Your task to perform on an android device: turn on showing notifications on the lock screen Image 0: 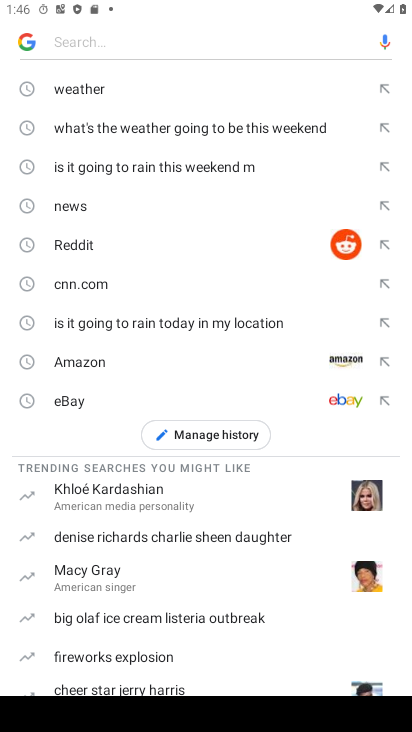
Step 0: press home button
Your task to perform on an android device: turn on showing notifications on the lock screen Image 1: 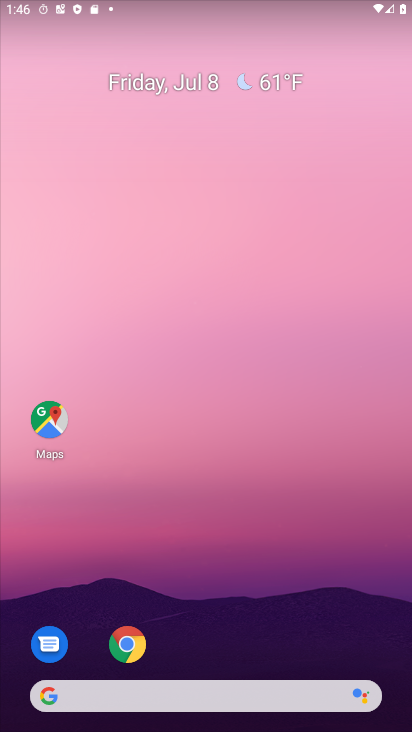
Step 1: drag from (214, 604) to (184, 219)
Your task to perform on an android device: turn on showing notifications on the lock screen Image 2: 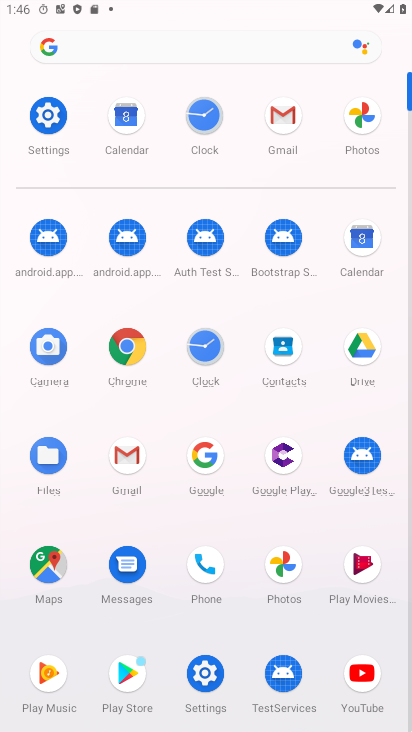
Step 2: click (184, 219)
Your task to perform on an android device: turn on showing notifications on the lock screen Image 3: 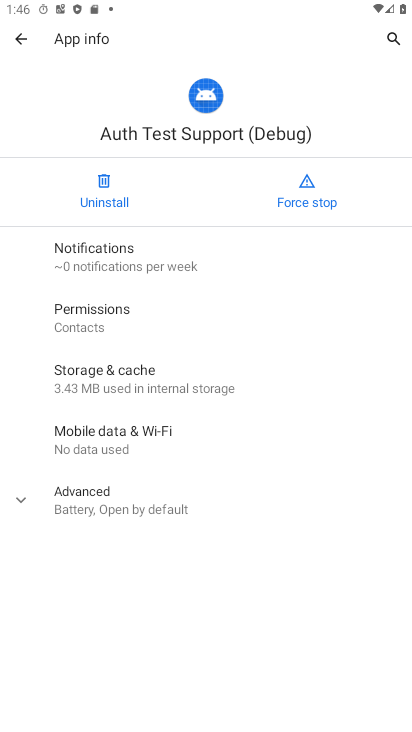
Step 3: press home button
Your task to perform on an android device: turn on showing notifications on the lock screen Image 4: 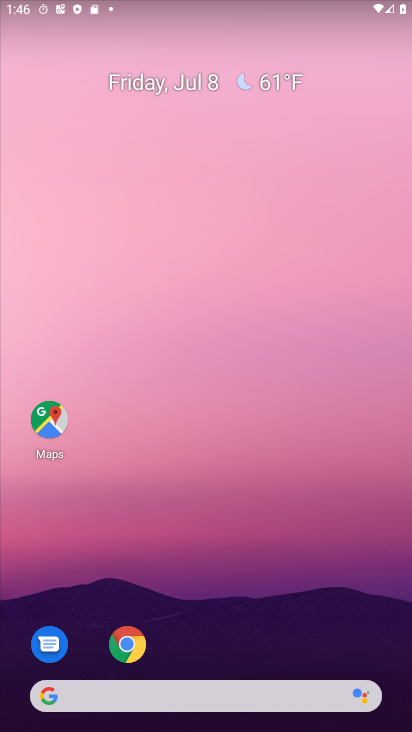
Step 4: drag from (327, 26) to (336, 701)
Your task to perform on an android device: turn on showing notifications on the lock screen Image 5: 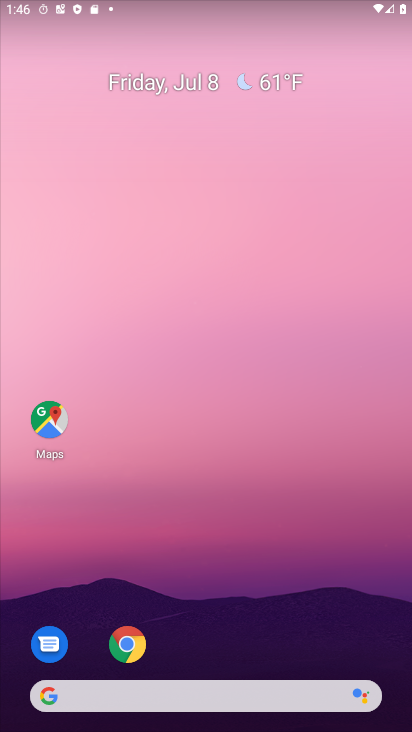
Step 5: drag from (209, 643) to (209, 126)
Your task to perform on an android device: turn on showing notifications on the lock screen Image 6: 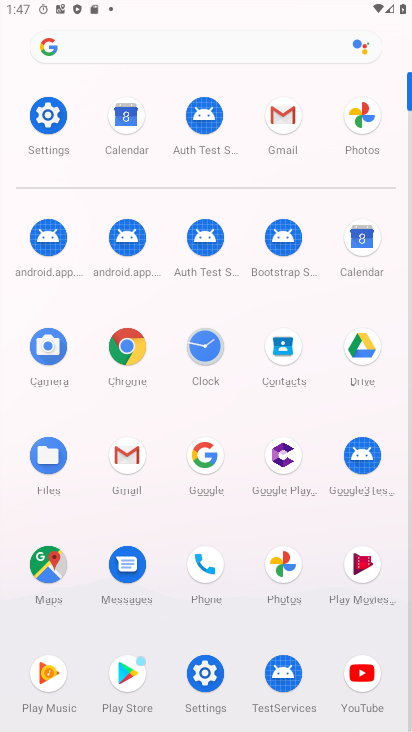
Step 6: click (206, 673)
Your task to perform on an android device: turn on showing notifications on the lock screen Image 7: 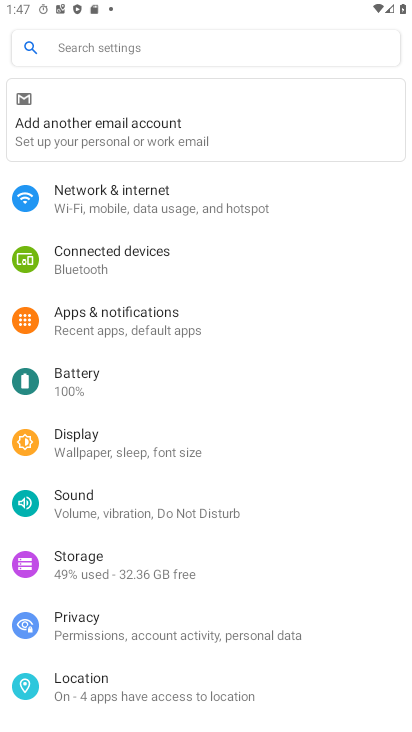
Step 7: click (102, 327)
Your task to perform on an android device: turn on showing notifications on the lock screen Image 8: 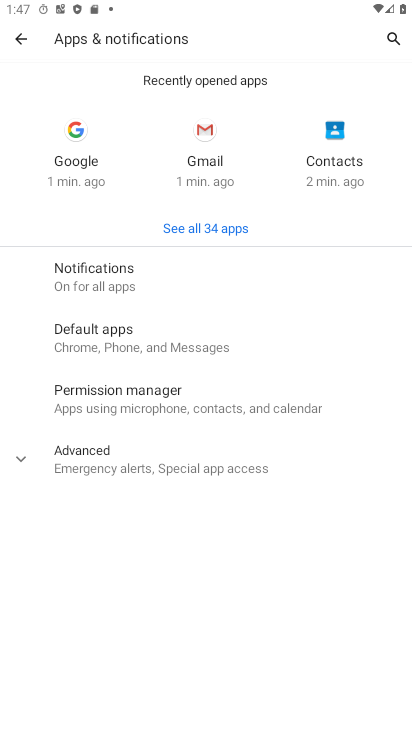
Step 8: click (115, 285)
Your task to perform on an android device: turn on showing notifications on the lock screen Image 9: 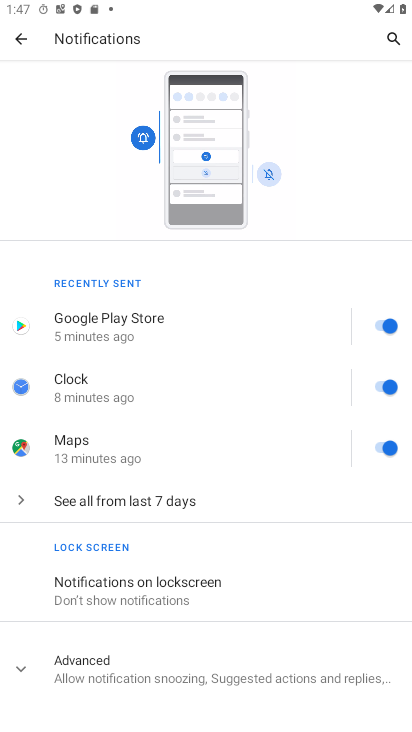
Step 9: click (109, 597)
Your task to perform on an android device: turn on showing notifications on the lock screen Image 10: 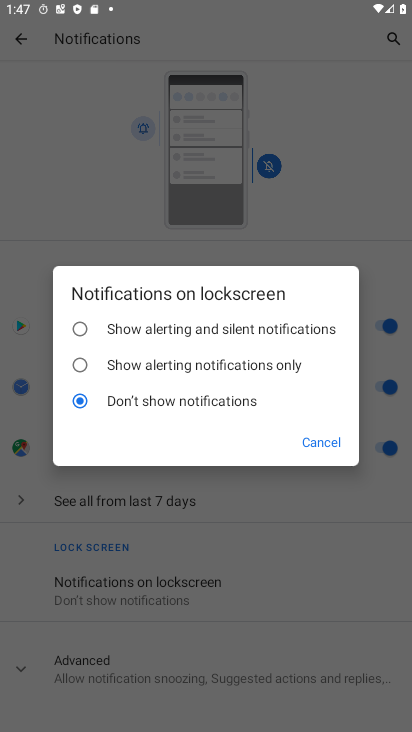
Step 10: click (79, 332)
Your task to perform on an android device: turn on showing notifications on the lock screen Image 11: 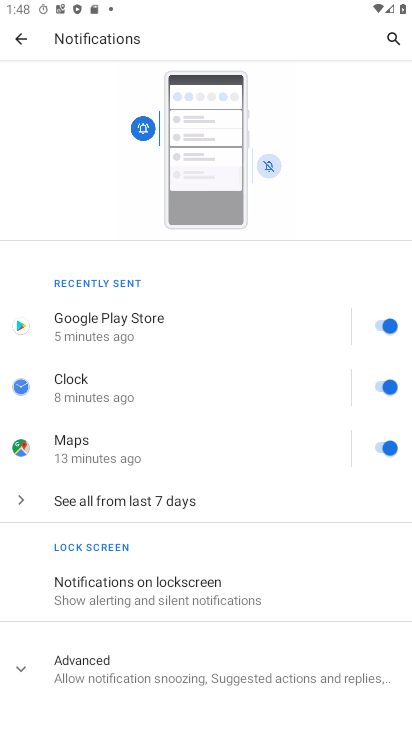
Step 11: task complete